Your task to perform on an android device: check data usage Image 0: 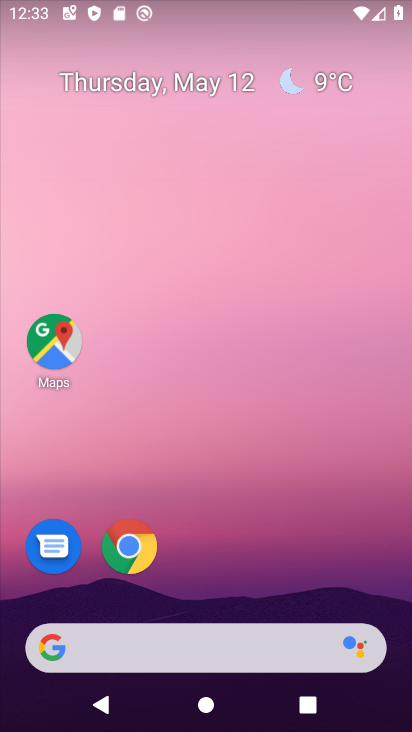
Step 0: drag from (244, 566) to (248, 103)
Your task to perform on an android device: check data usage Image 1: 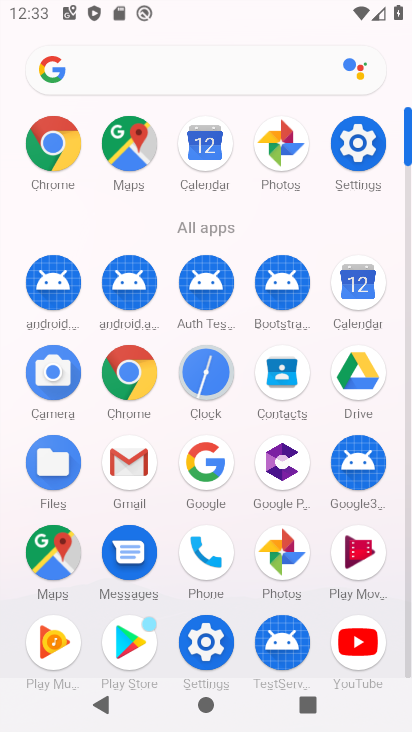
Step 1: click (369, 151)
Your task to perform on an android device: check data usage Image 2: 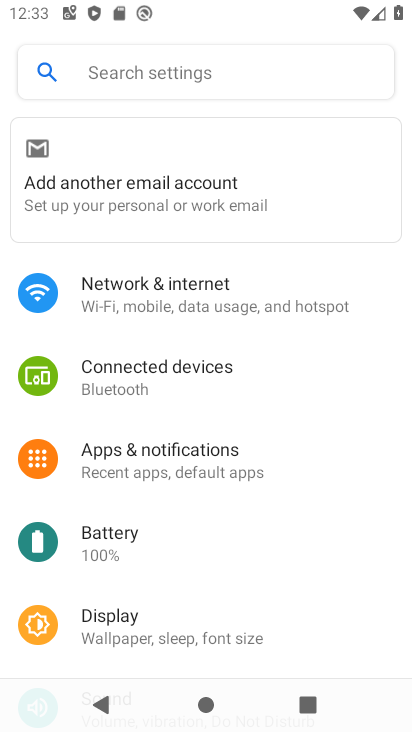
Step 2: click (196, 292)
Your task to perform on an android device: check data usage Image 3: 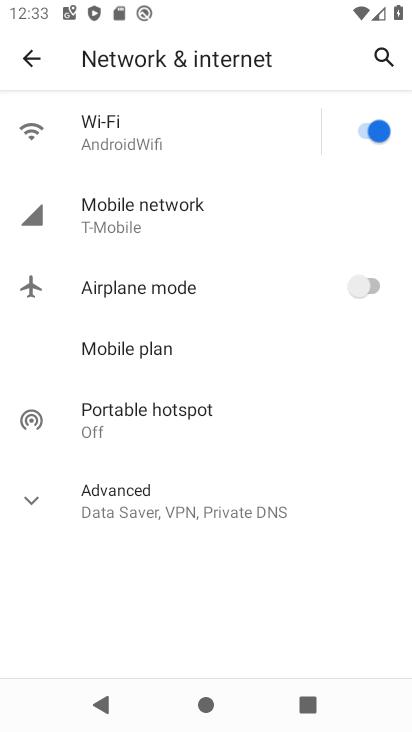
Step 3: click (186, 215)
Your task to perform on an android device: check data usage Image 4: 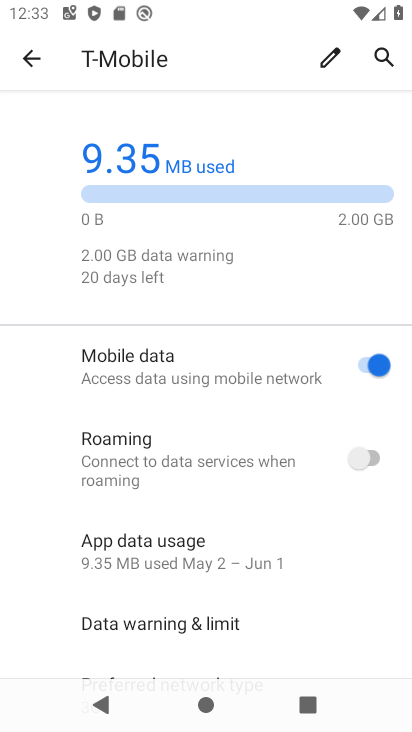
Step 4: click (204, 552)
Your task to perform on an android device: check data usage Image 5: 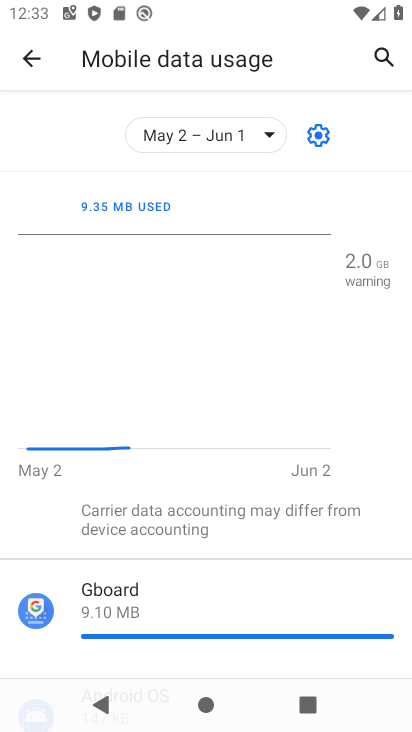
Step 5: task complete